Your task to perform on an android device: turn on data saver in the chrome app Image 0: 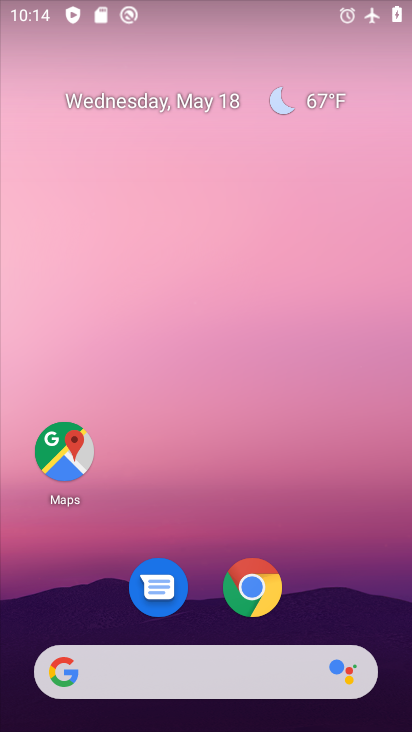
Step 0: click (252, 580)
Your task to perform on an android device: turn on data saver in the chrome app Image 1: 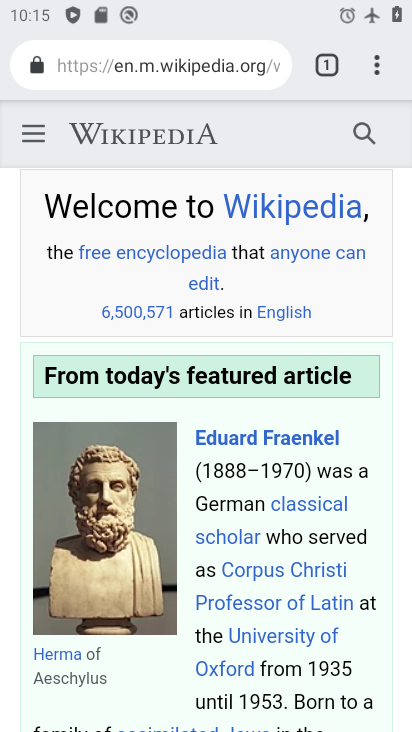
Step 1: click (373, 62)
Your task to perform on an android device: turn on data saver in the chrome app Image 2: 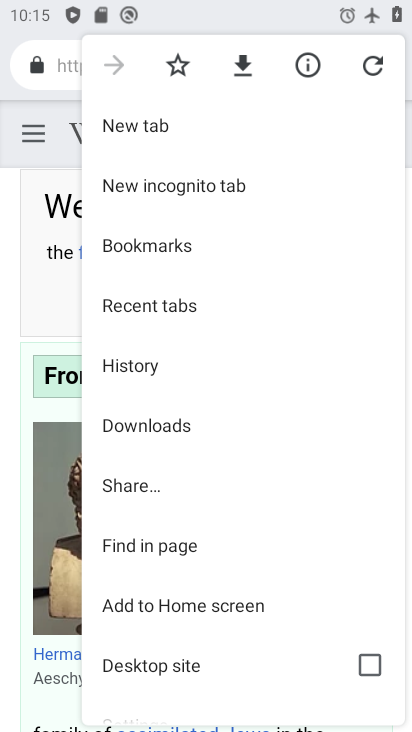
Step 2: drag from (286, 500) to (288, 131)
Your task to perform on an android device: turn on data saver in the chrome app Image 3: 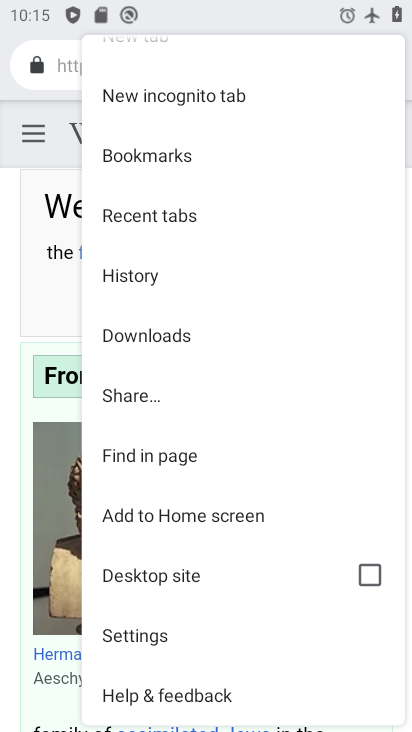
Step 3: drag from (235, 628) to (275, 230)
Your task to perform on an android device: turn on data saver in the chrome app Image 4: 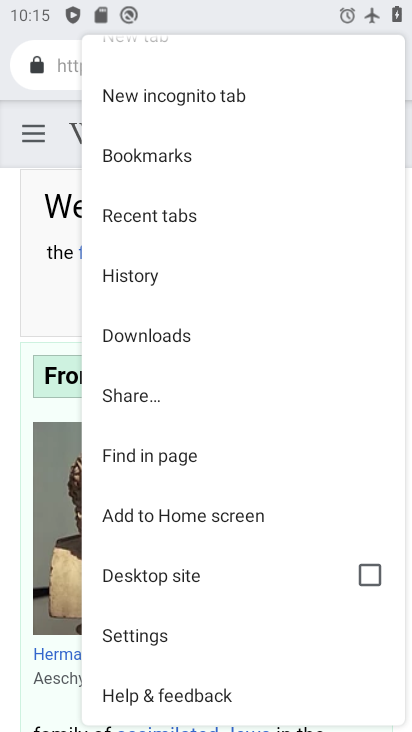
Step 4: click (205, 630)
Your task to perform on an android device: turn on data saver in the chrome app Image 5: 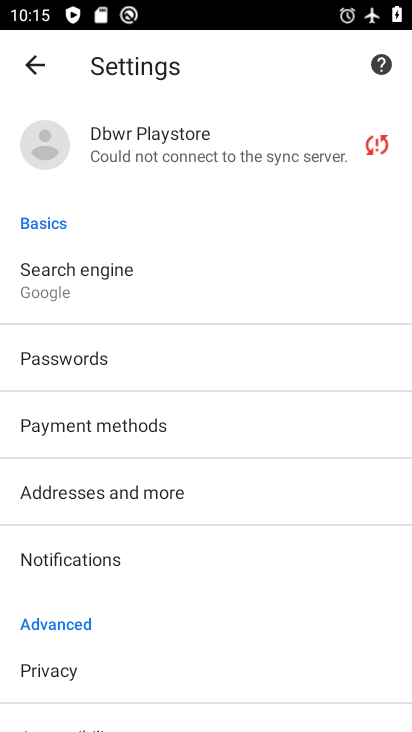
Step 5: drag from (204, 626) to (230, 231)
Your task to perform on an android device: turn on data saver in the chrome app Image 6: 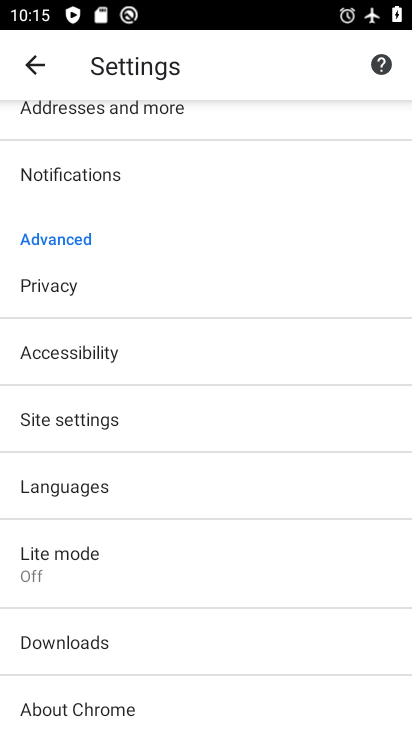
Step 6: drag from (220, 568) to (255, 327)
Your task to perform on an android device: turn on data saver in the chrome app Image 7: 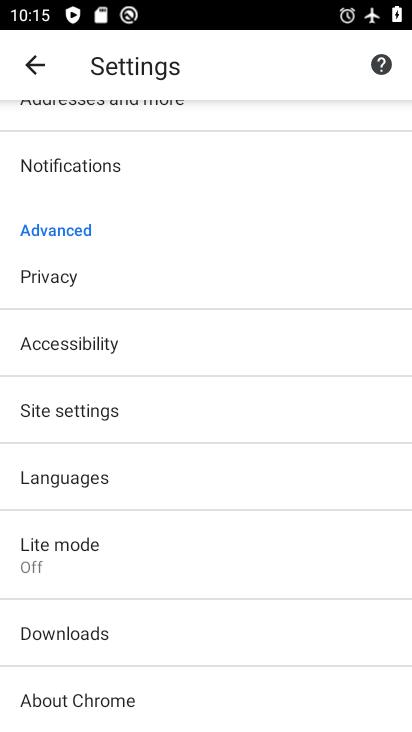
Step 7: drag from (246, 263) to (254, 413)
Your task to perform on an android device: turn on data saver in the chrome app Image 8: 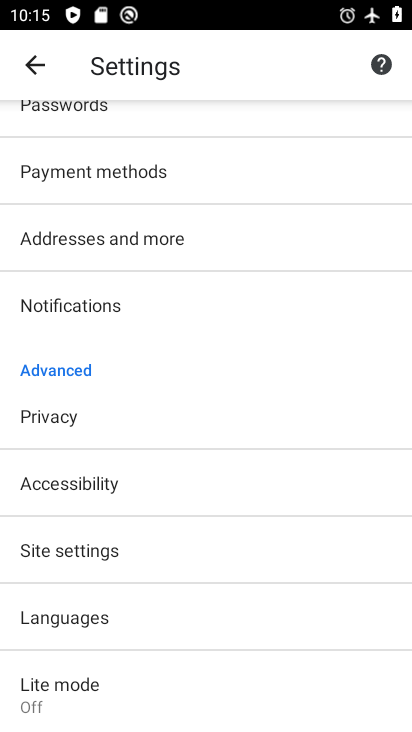
Step 8: drag from (175, 690) to (168, 359)
Your task to perform on an android device: turn on data saver in the chrome app Image 9: 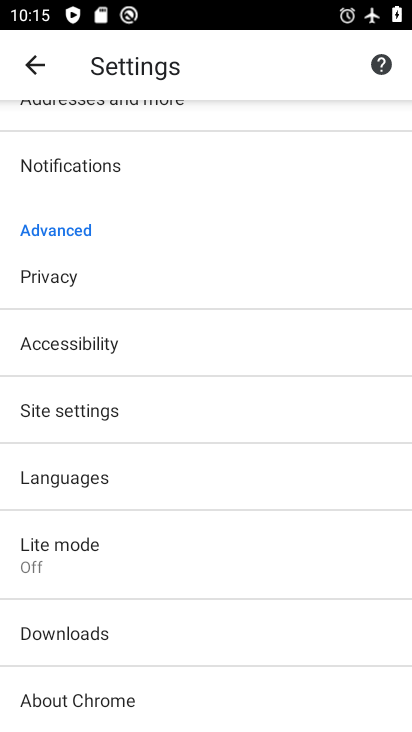
Step 9: click (96, 699)
Your task to perform on an android device: turn on data saver in the chrome app Image 10: 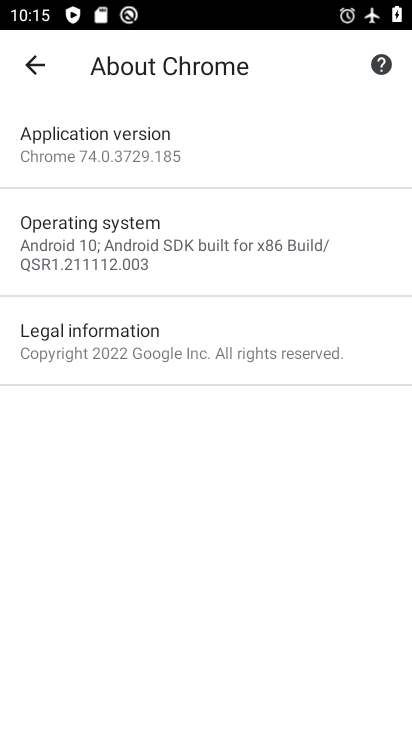
Step 10: press back button
Your task to perform on an android device: turn on data saver in the chrome app Image 11: 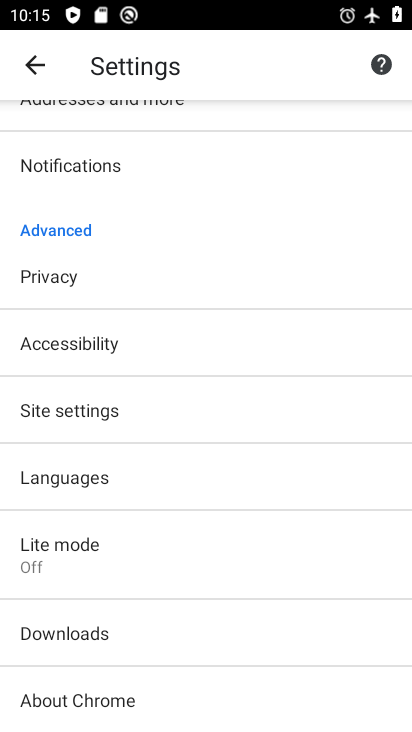
Step 11: click (281, 354)
Your task to perform on an android device: turn on data saver in the chrome app Image 12: 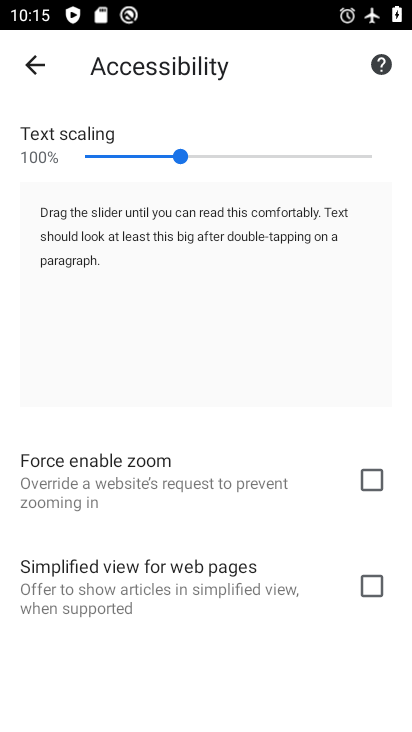
Step 12: drag from (256, 644) to (261, 377)
Your task to perform on an android device: turn on data saver in the chrome app Image 13: 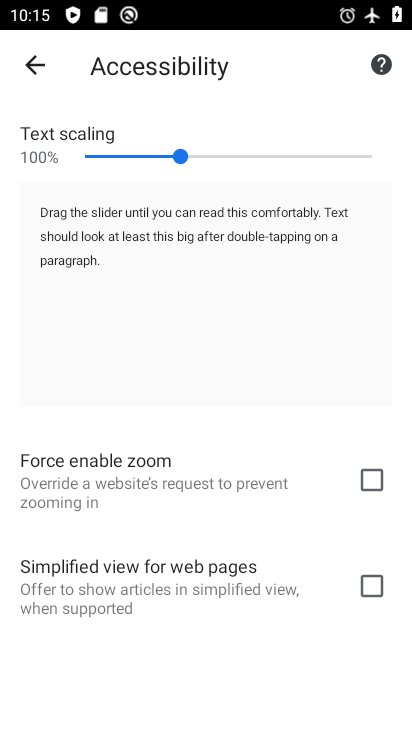
Step 13: press back button
Your task to perform on an android device: turn on data saver in the chrome app Image 14: 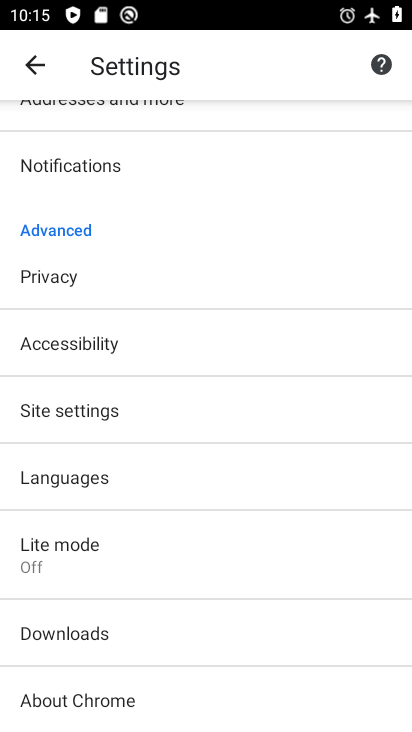
Step 14: click (151, 275)
Your task to perform on an android device: turn on data saver in the chrome app Image 15: 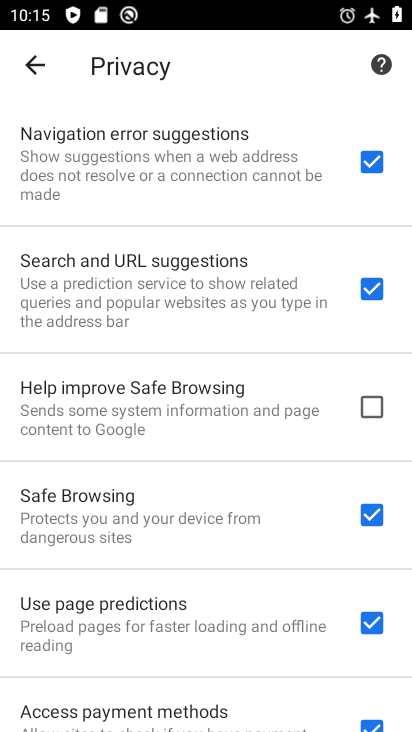
Step 15: drag from (104, 572) to (154, 255)
Your task to perform on an android device: turn on data saver in the chrome app Image 16: 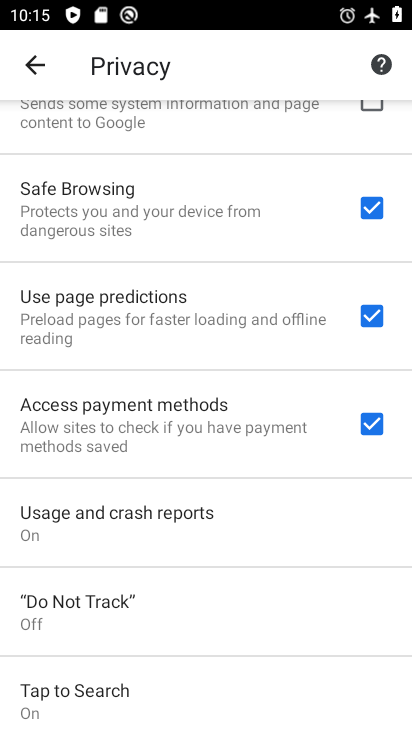
Step 16: drag from (150, 586) to (175, 375)
Your task to perform on an android device: turn on data saver in the chrome app Image 17: 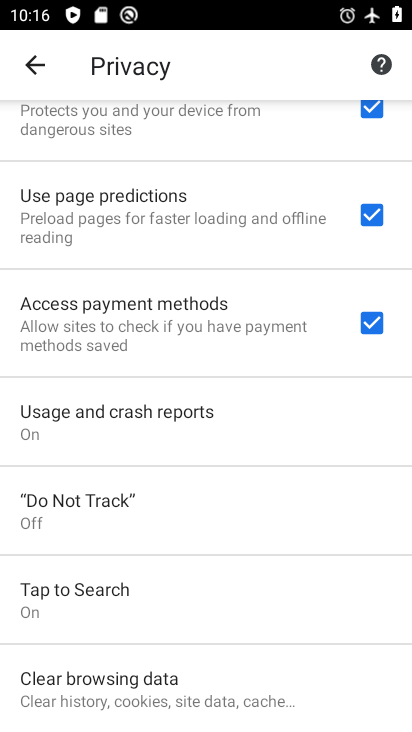
Step 17: press back button
Your task to perform on an android device: turn on data saver in the chrome app Image 18: 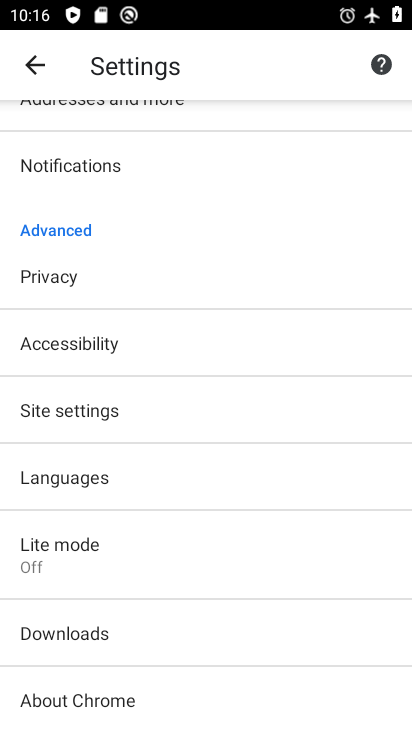
Step 18: click (290, 416)
Your task to perform on an android device: turn on data saver in the chrome app Image 19: 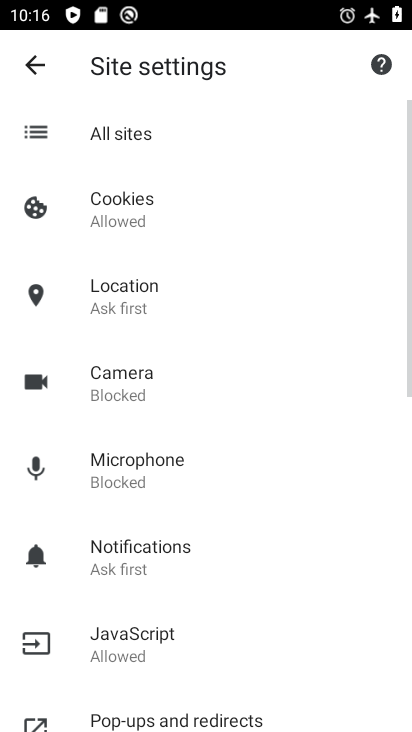
Step 19: task complete